Your task to perform on an android device: toggle translation in the chrome app Image 0: 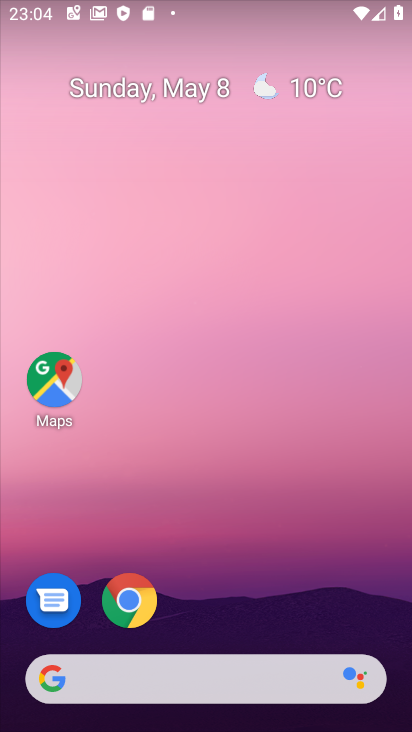
Step 0: click (131, 606)
Your task to perform on an android device: toggle translation in the chrome app Image 1: 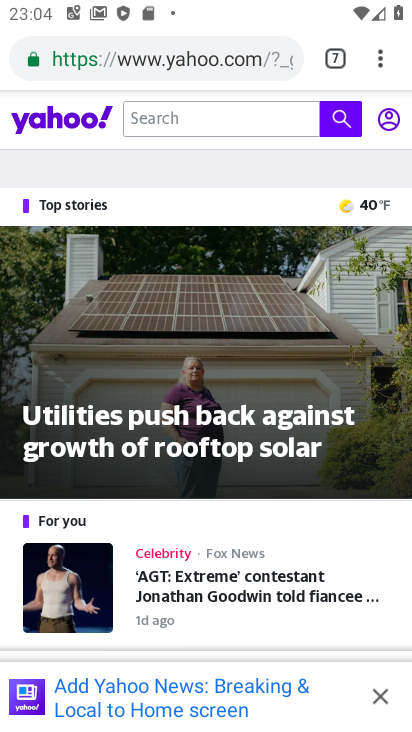
Step 1: click (386, 58)
Your task to perform on an android device: toggle translation in the chrome app Image 2: 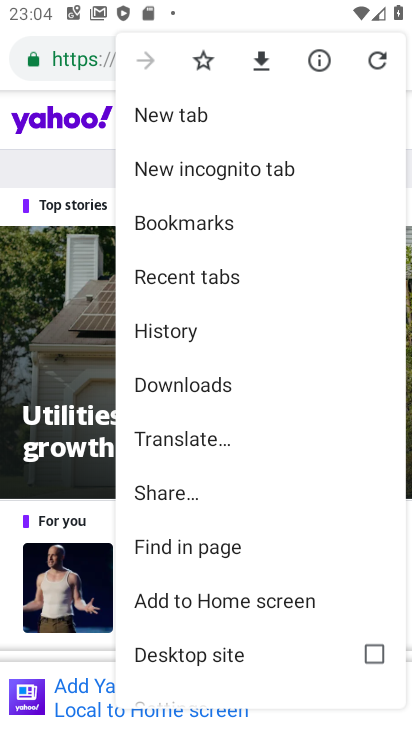
Step 2: drag from (168, 644) to (262, 203)
Your task to perform on an android device: toggle translation in the chrome app Image 3: 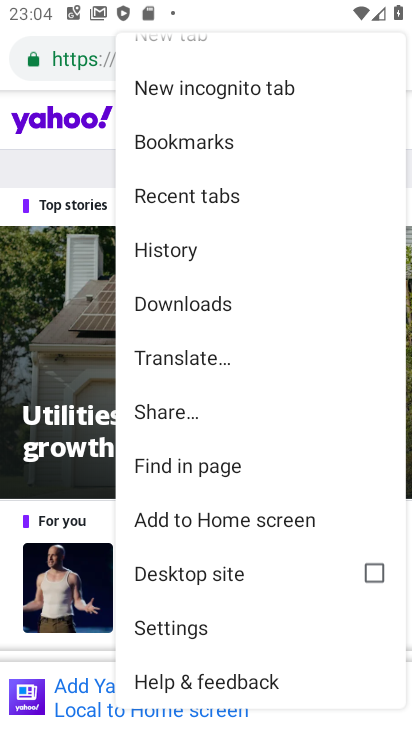
Step 3: click (208, 622)
Your task to perform on an android device: toggle translation in the chrome app Image 4: 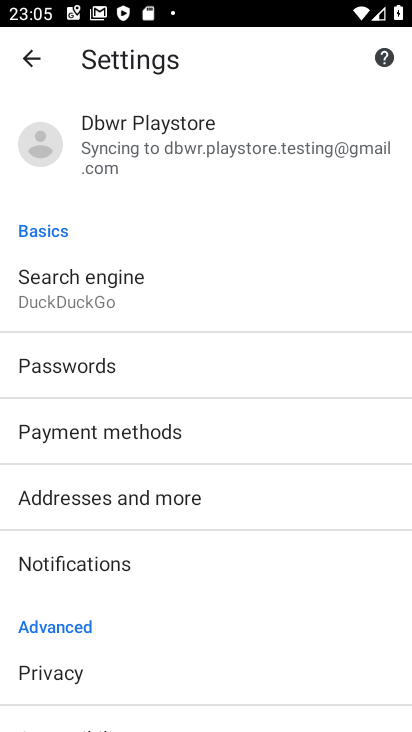
Step 4: drag from (208, 622) to (193, 125)
Your task to perform on an android device: toggle translation in the chrome app Image 5: 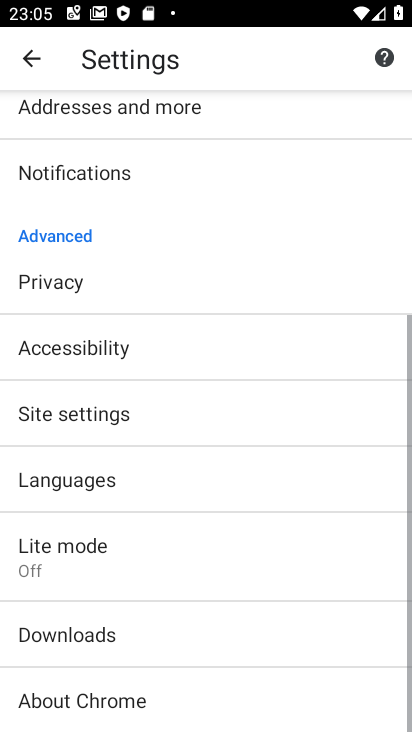
Step 5: drag from (127, 605) to (167, 229)
Your task to perform on an android device: toggle translation in the chrome app Image 6: 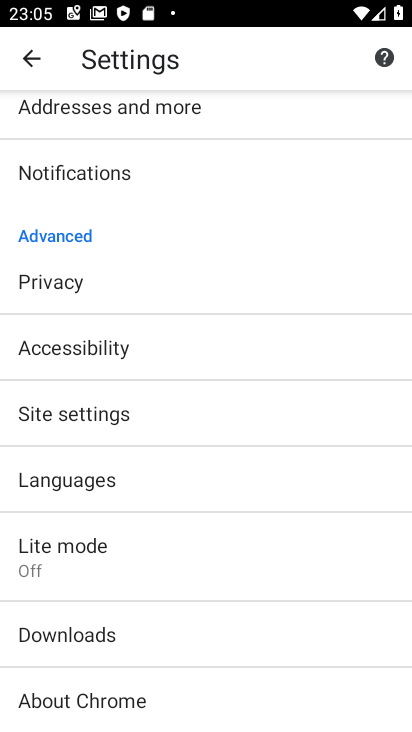
Step 6: drag from (161, 597) to (216, 85)
Your task to perform on an android device: toggle translation in the chrome app Image 7: 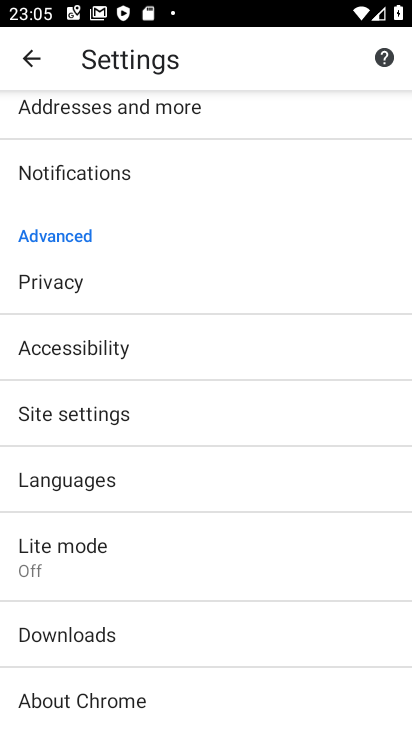
Step 7: click (144, 468)
Your task to perform on an android device: toggle translation in the chrome app Image 8: 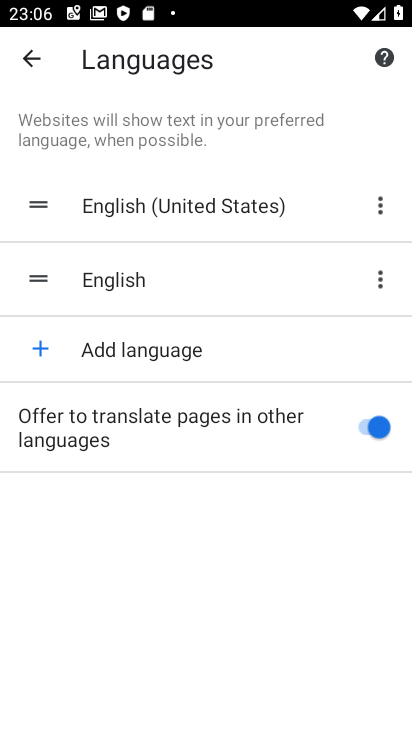
Step 8: click (365, 426)
Your task to perform on an android device: toggle translation in the chrome app Image 9: 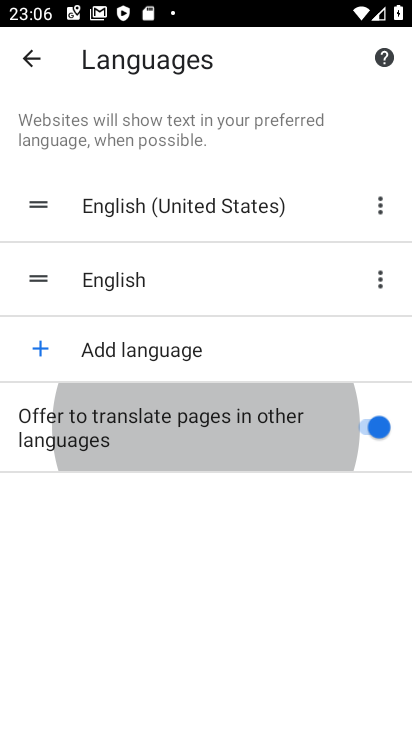
Step 9: click (365, 426)
Your task to perform on an android device: toggle translation in the chrome app Image 10: 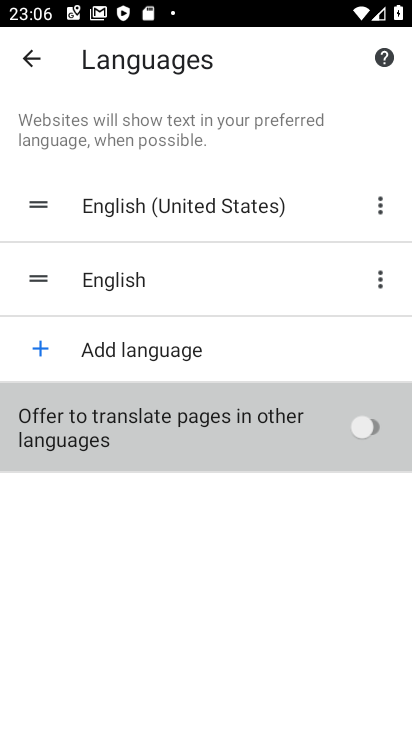
Step 10: click (365, 426)
Your task to perform on an android device: toggle translation in the chrome app Image 11: 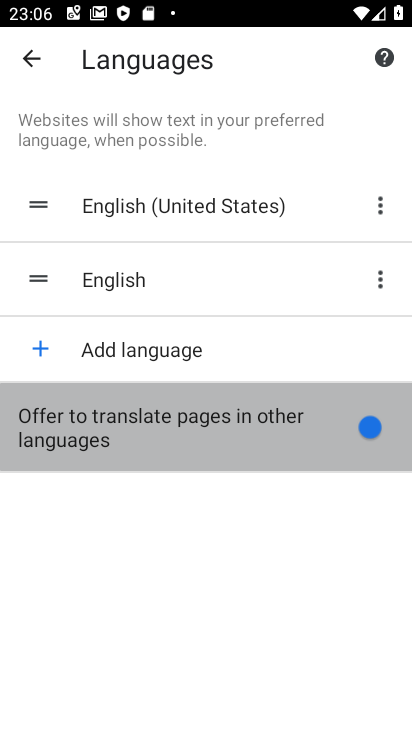
Step 11: click (365, 426)
Your task to perform on an android device: toggle translation in the chrome app Image 12: 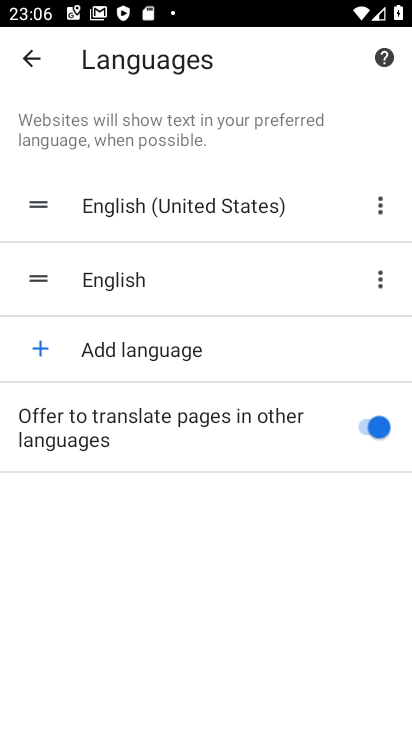
Step 12: task complete